Your task to perform on an android device: toggle pop-ups in chrome Image 0: 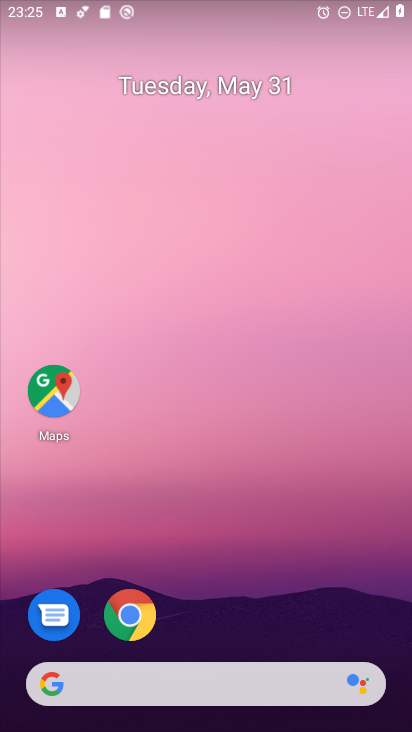
Step 0: click (131, 614)
Your task to perform on an android device: toggle pop-ups in chrome Image 1: 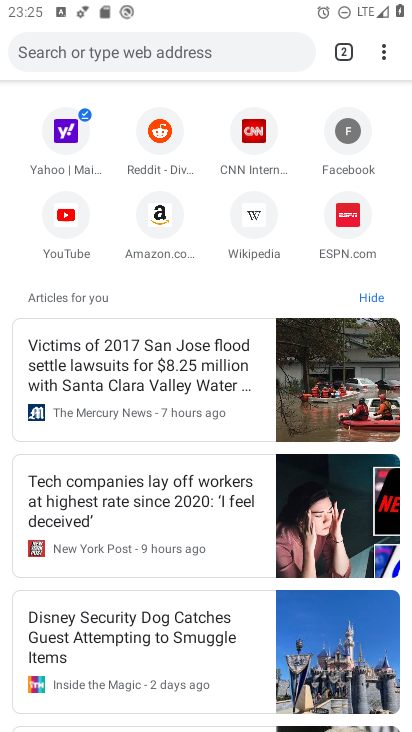
Step 1: click (380, 60)
Your task to perform on an android device: toggle pop-ups in chrome Image 2: 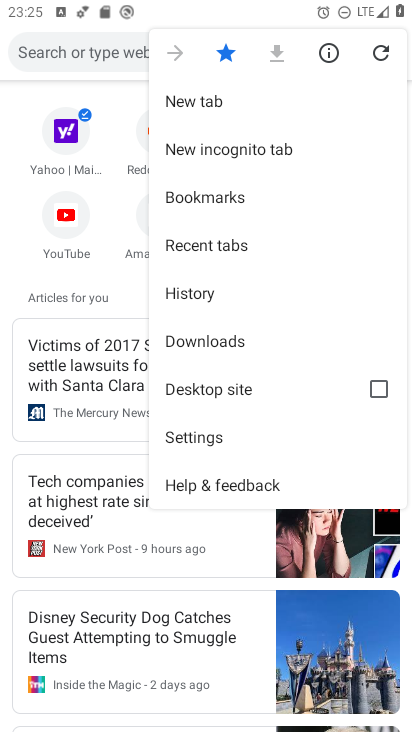
Step 2: click (218, 426)
Your task to perform on an android device: toggle pop-ups in chrome Image 3: 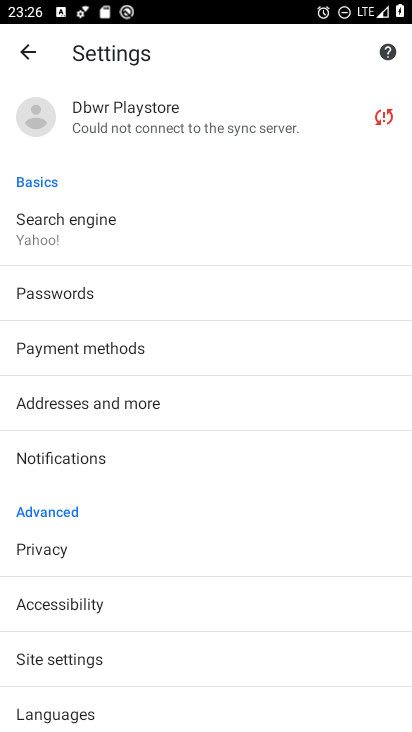
Step 3: drag from (171, 641) to (201, 277)
Your task to perform on an android device: toggle pop-ups in chrome Image 4: 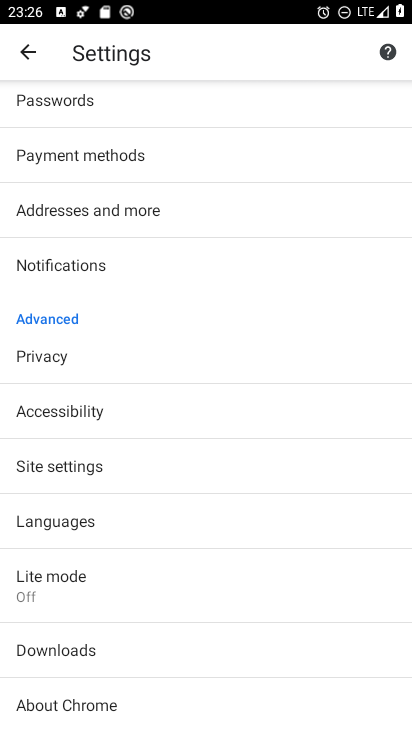
Step 4: click (74, 469)
Your task to perform on an android device: toggle pop-ups in chrome Image 5: 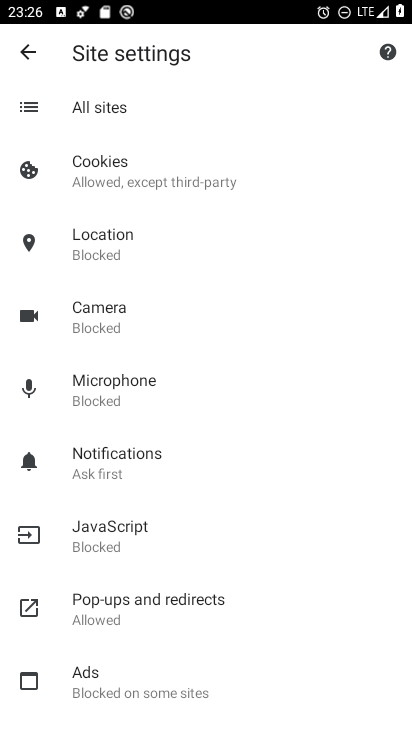
Step 5: click (115, 593)
Your task to perform on an android device: toggle pop-ups in chrome Image 6: 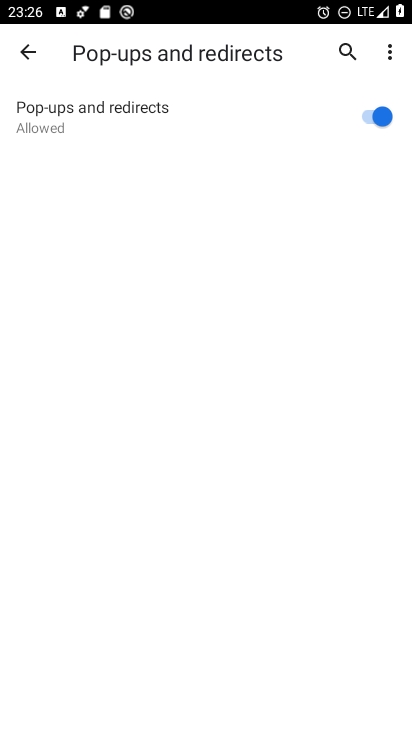
Step 6: click (366, 117)
Your task to perform on an android device: toggle pop-ups in chrome Image 7: 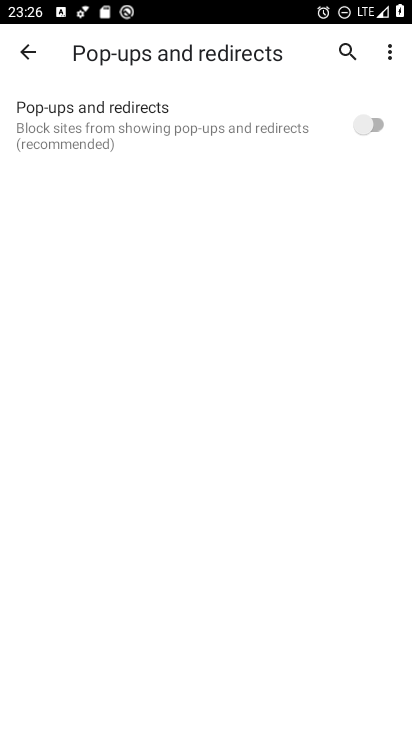
Step 7: task complete